Your task to perform on an android device: Show me the alarms in the clock app Image 0: 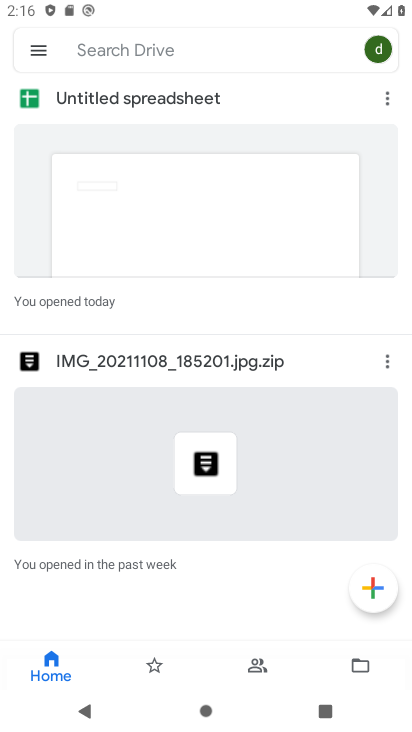
Step 0: press home button
Your task to perform on an android device: Show me the alarms in the clock app Image 1: 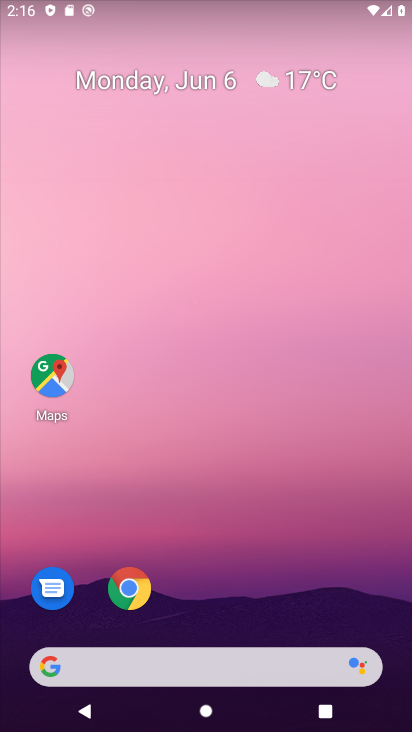
Step 1: drag from (217, 670) to (244, 181)
Your task to perform on an android device: Show me the alarms in the clock app Image 2: 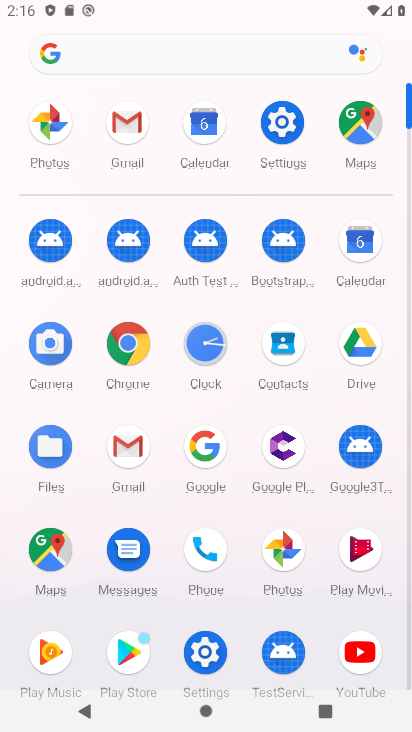
Step 2: click (196, 344)
Your task to perform on an android device: Show me the alarms in the clock app Image 3: 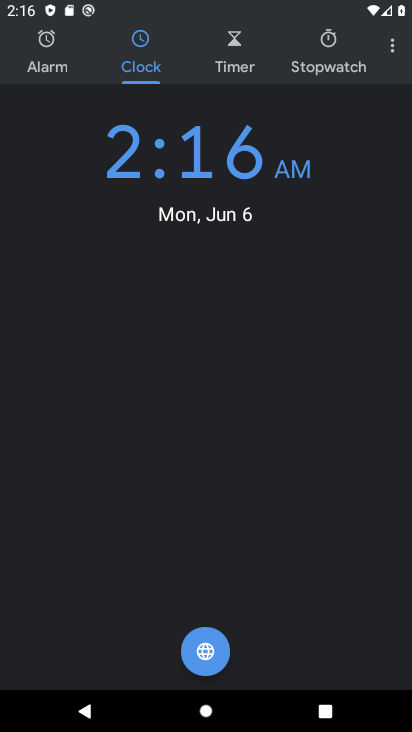
Step 3: click (52, 67)
Your task to perform on an android device: Show me the alarms in the clock app Image 4: 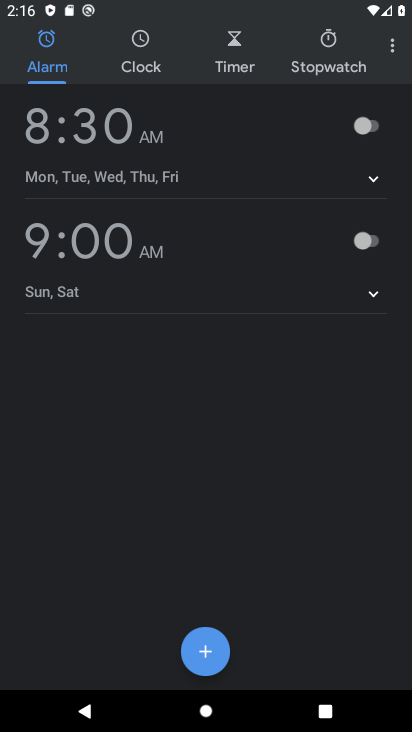
Step 4: task complete